Your task to perform on an android device: Search for Italian restaurants on Maps Image 0: 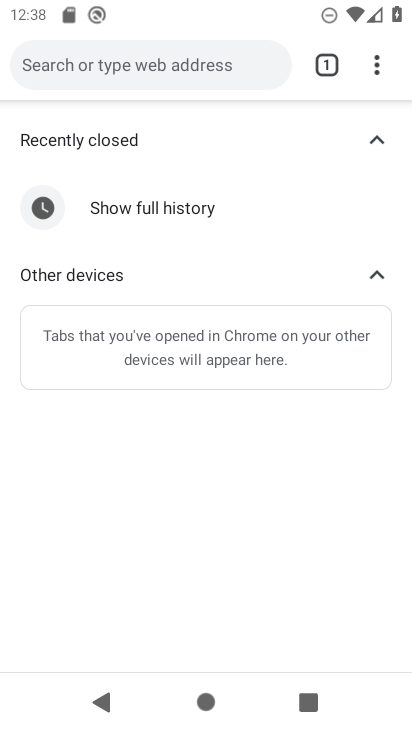
Step 0: press home button
Your task to perform on an android device: Search for Italian restaurants on Maps Image 1: 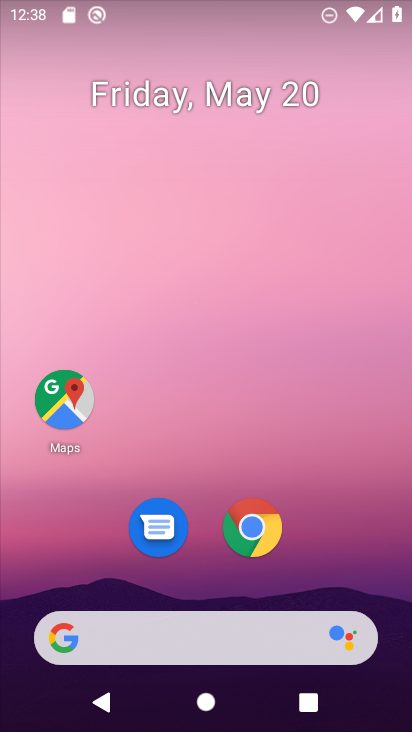
Step 1: click (54, 402)
Your task to perform on an android device: Search for Italian restaurants on Maps Image 2: 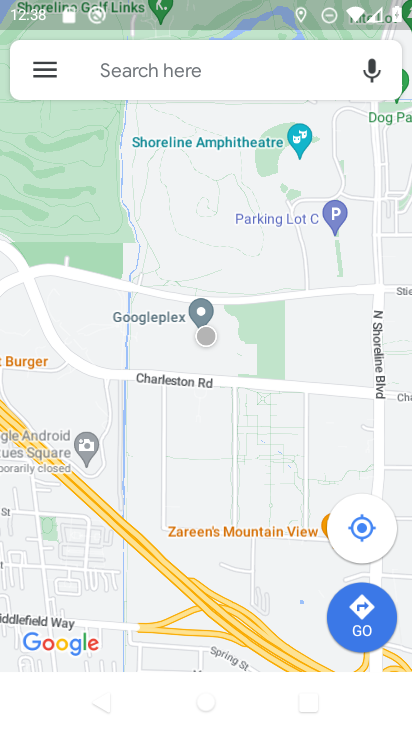
Step 2: click (97, 65)
Your task to perform on an android device: Search for Italian restaurants on Maps Image 3: 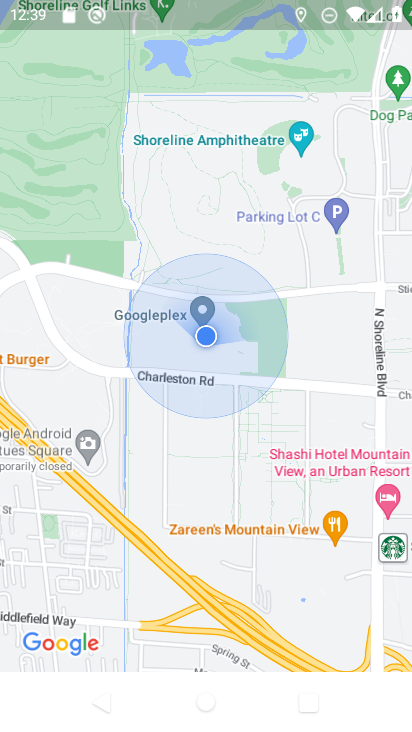
Step 3: press back button
Your task to perform on an android device: Search for Italian restaurants on Maps Image 4: 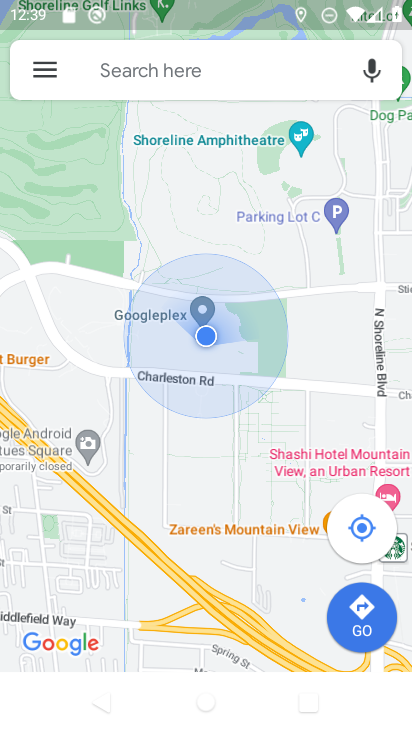
Step 4: click (89, 78)
Your task to perform on an android device: Search for Italian restaurants on Maps Image 5: 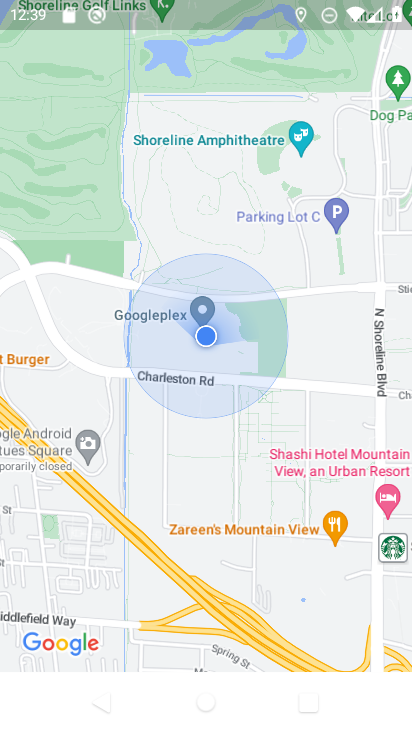
Step 5: press back button
Your task to perform on an android device: Search for Italian restaurants on Maps Image 6: 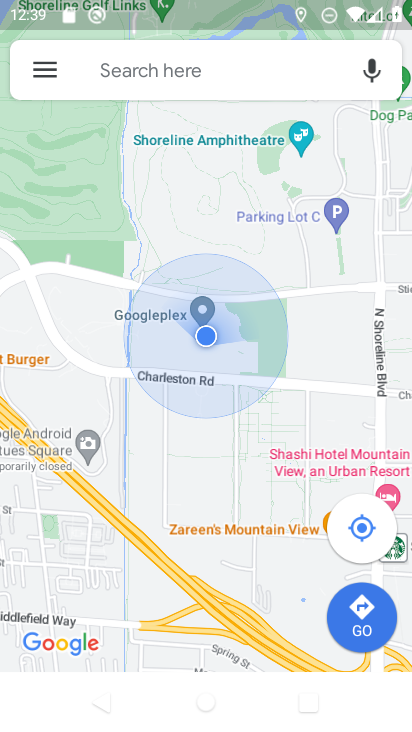
Step 6: click (98, 67)
Your task to perform on an android device: Search for Italian restaurants on Maps Image 7: 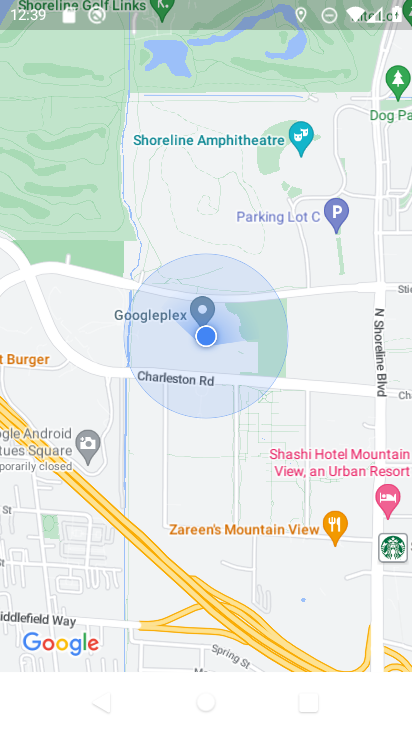
Step 7: press back button
Your task to perform on an android device: Search for Italian restaurants on Maps Image 8: 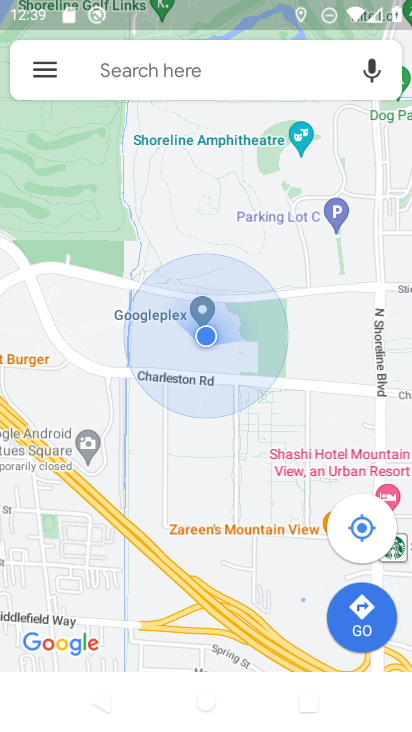
Step 8: click (102, 68)
Your task to perform on an android device: Search for Italian restaurants on Maps Image 9: 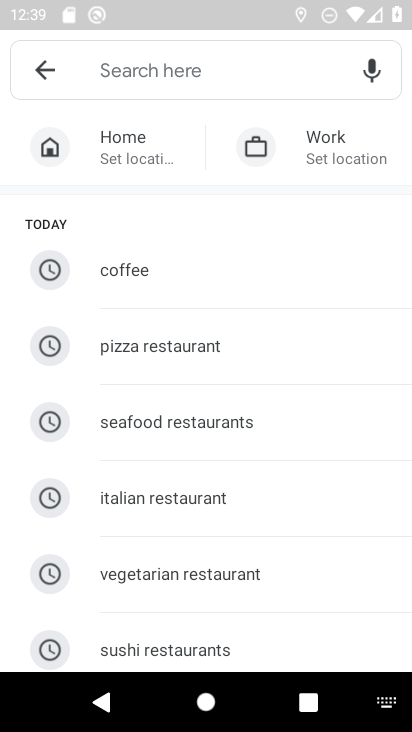
Step 9: type "Italian restaurants"
Your task to perform on an android device: Search for Italian restaurants on Maps Image 10: 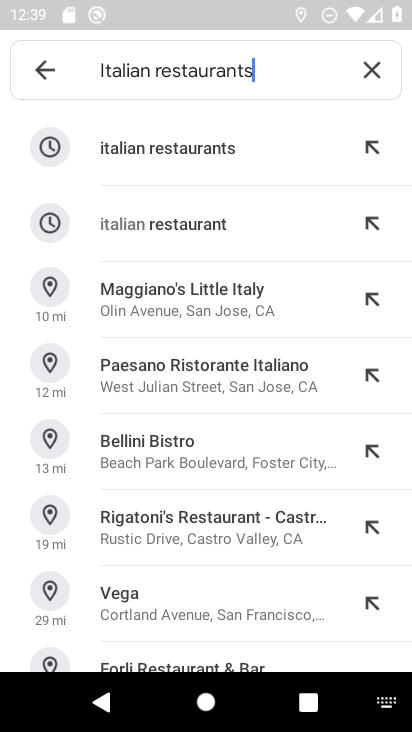
Step 10: click (204, 148)
Your task to perform on an android device: Search for Italian restaurants on Maps Image 11: 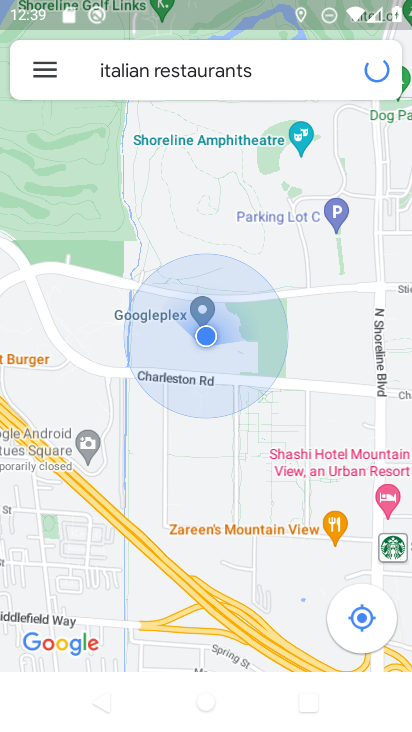
Step 11: task complete